Your task to perform on an android device: Clear the shopping cart on target.com. Search for logitech g903 on target.com, select the first entry, add it to the cart, then select checkout. Image 0: 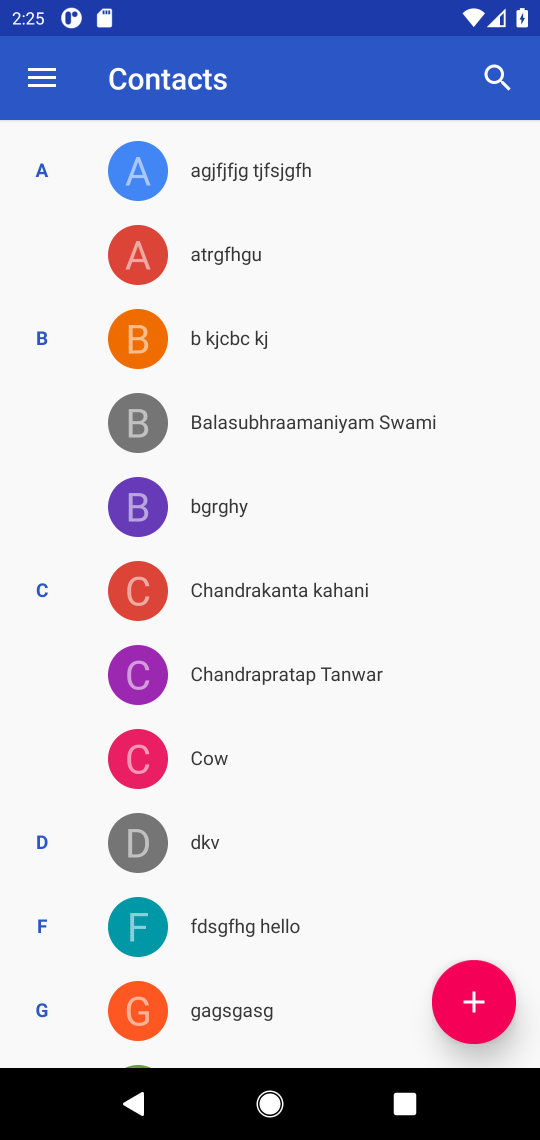
Step 0: press home button
Your task to perform on an android device: Clear the shopping cart on target.com. Search for logitech g903 on target.com, select the first entry, add it to the cart, then select checkout. Image 1: 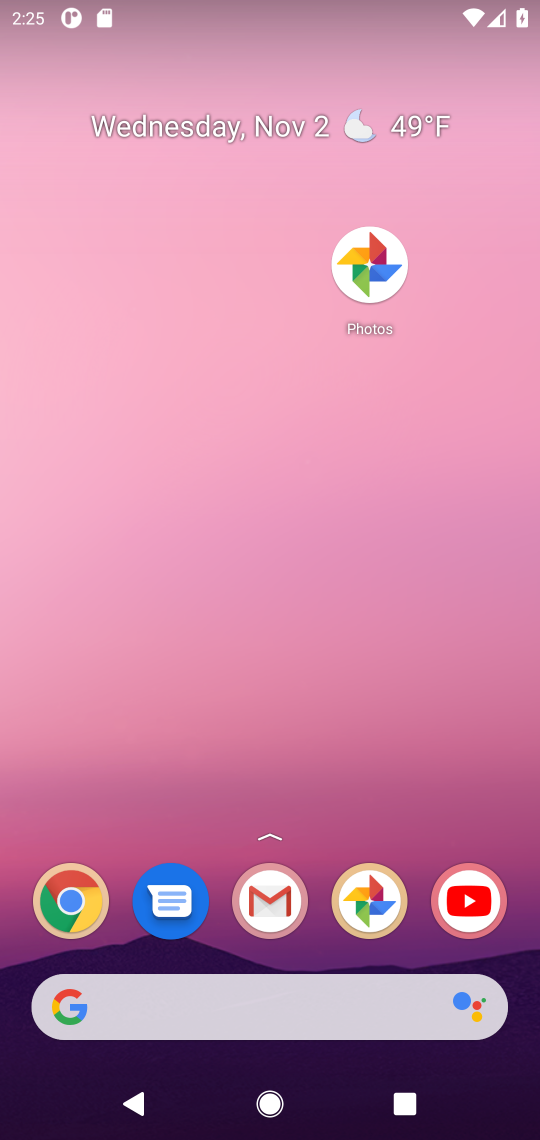
Step 1: drag from (323, 765) to (278, 109)
Your task to perform on an android device: Clear the shopping cart on target.com. Search for logitech g903 on target.com, select the first entry, add it to the cart, then select checkout. Image 2: 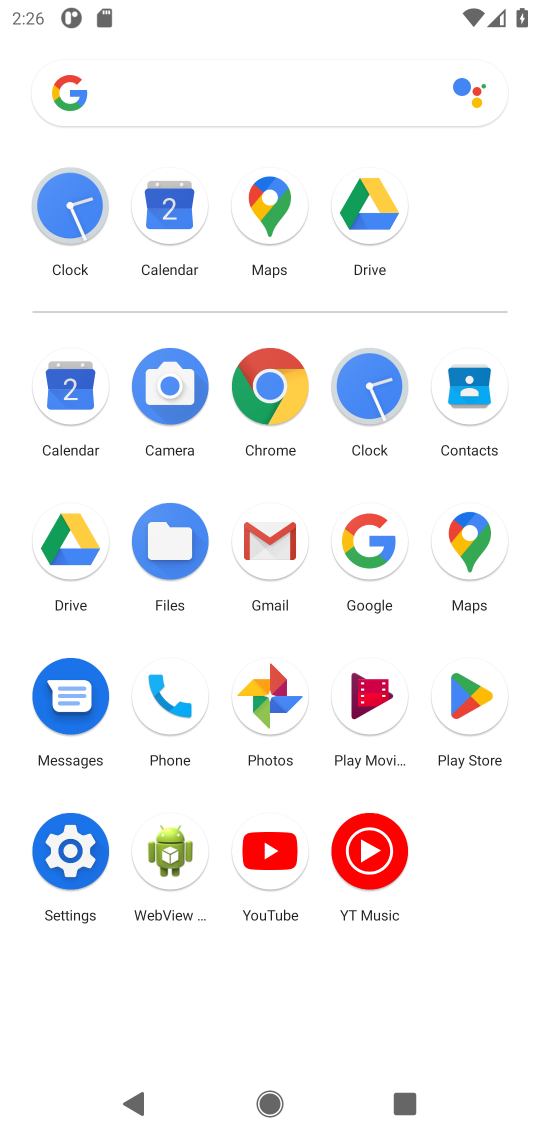
Step 2: click (277, 393)
Your task to perform on an android device: Clear the shopping cart on target.com. Search for logitech g903 on target.com, select the first entry, add it to the cart, then select checkout. Image 3: 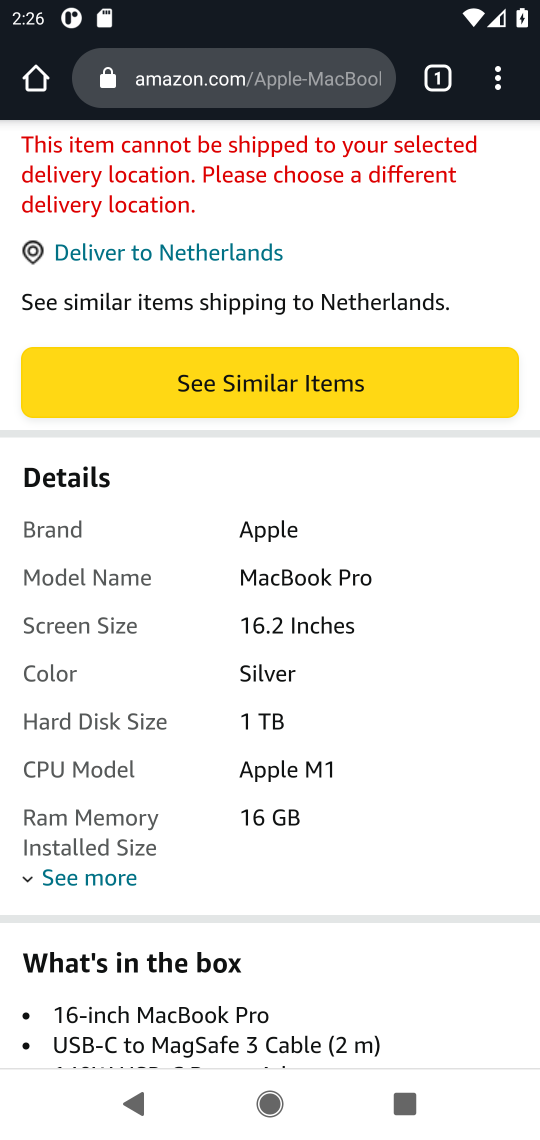
Step 3: click (292, 78)
Your task to perform on an android device: Clear the shopping cart on target.com. Search for logitech g903 on target.com, select the first entry, add it to the cart, then select checkout. Image 4: 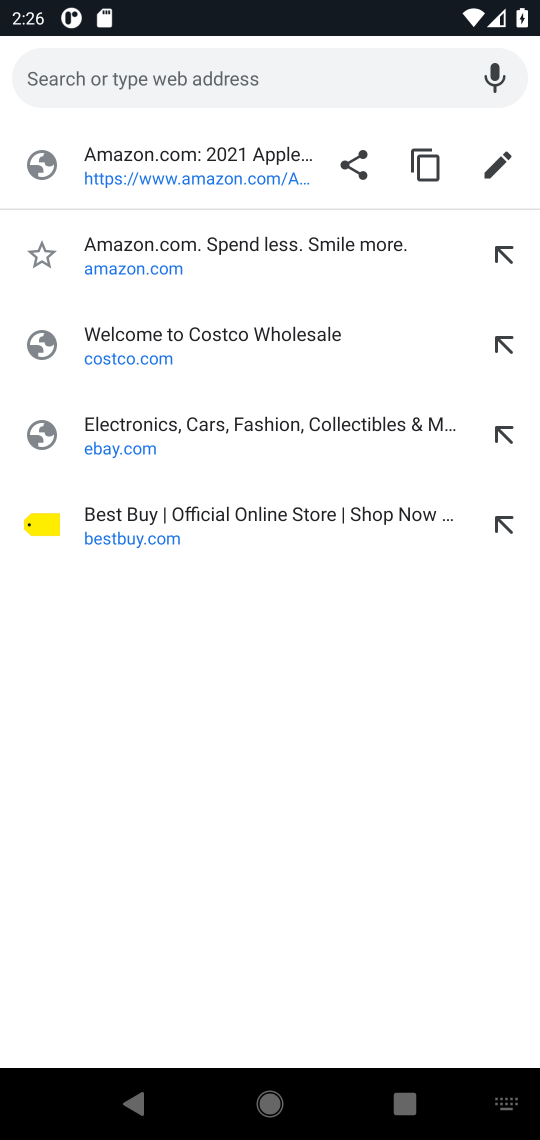
Step 4: type "target.com"
Your task to perform on an android device: Clear the shopping cart on target.com. Search for logitech g903 on target.com, select the first entry, add it to the cart, then select checkout. Image 5: 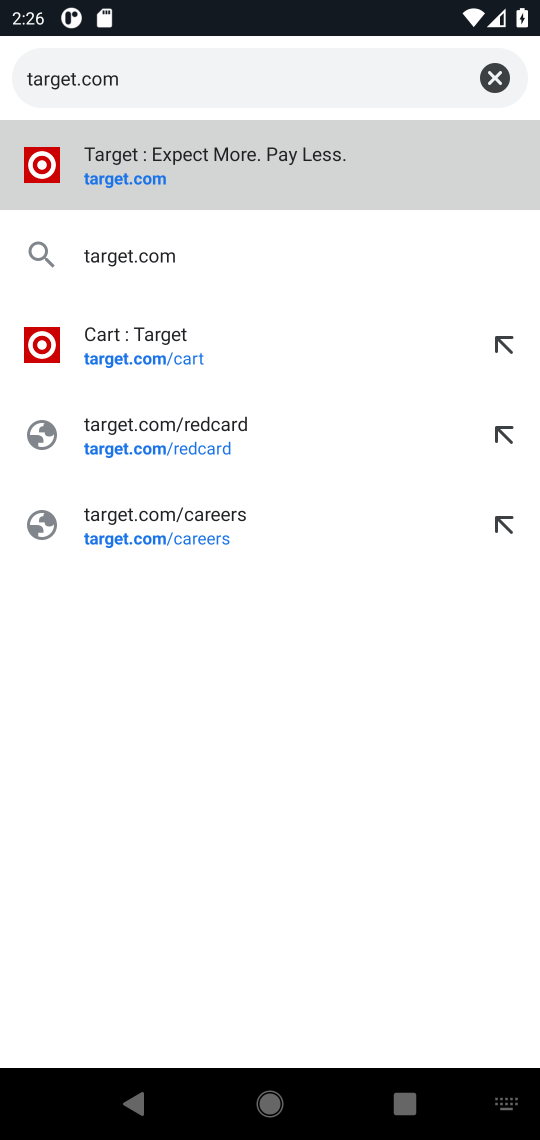
Step 5: press enter
Your task to perform on an android device: Clear the shopping cart on target.com. Search for logitech g903 on target.com, select the first entry, add it to the cart, then select checkout. Image 6: 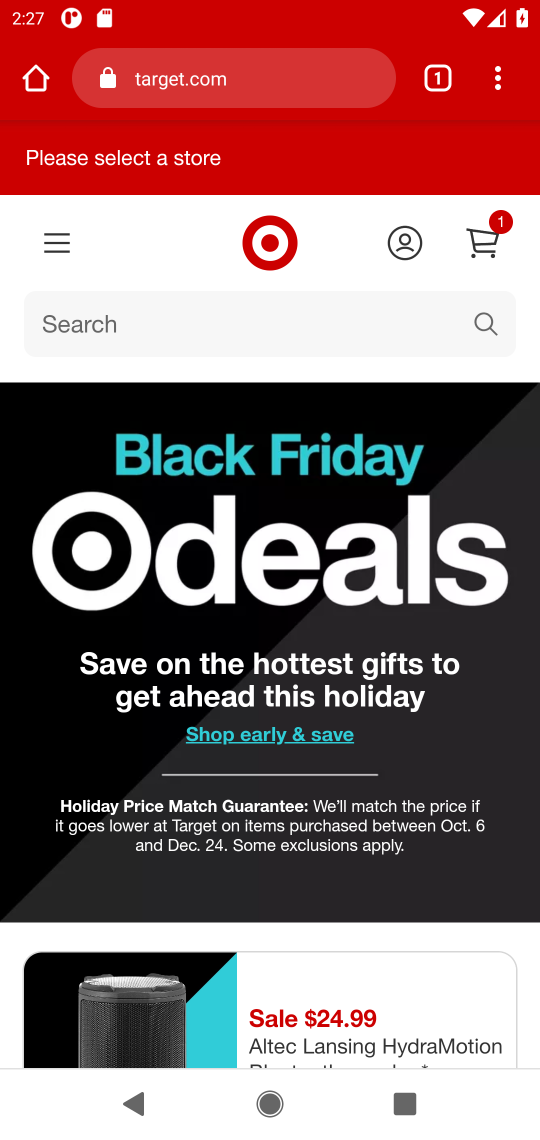
Step 6: click (497, 240)
Your task to perform on an android device: Clear the shopping cart on target.com. Search for logitech g903 on target.com, select the first entry, add it to the cart, then select checkout. Image 7: 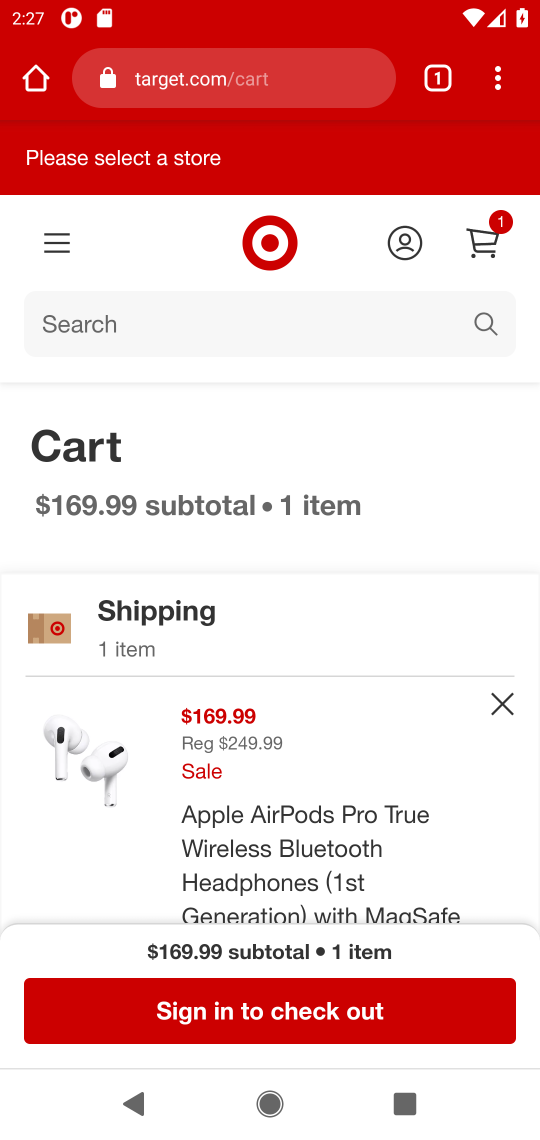
Step 7: drag from (247, 863) to (268, 584)
Your task to perform on an android device: Clear the shopping cart on target.com. Search for logitech g903 on target.com, select the first entry, add it to the cart, then select checkout. Image 8: 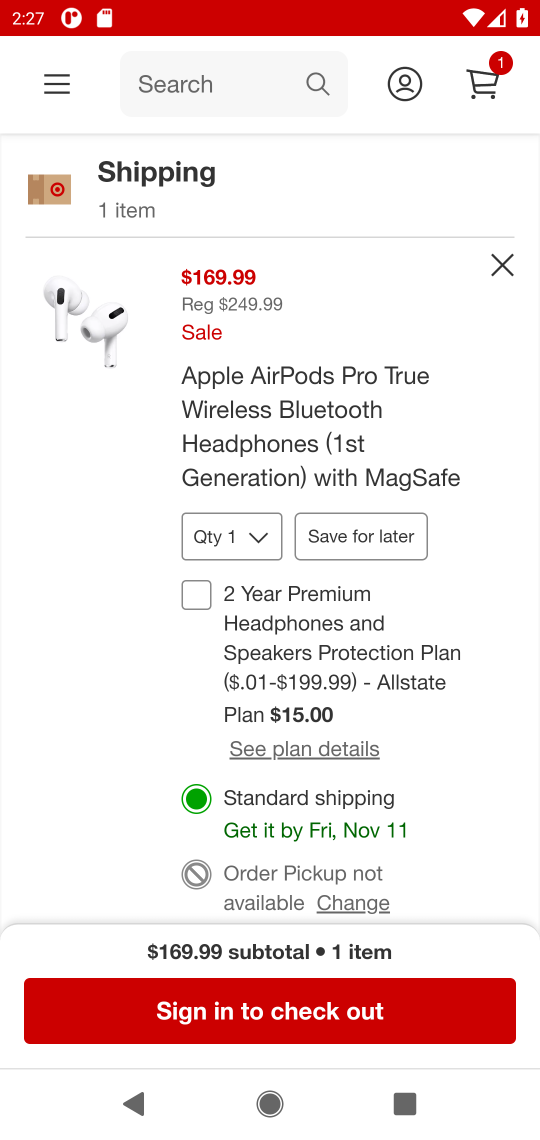
Step 8: click (511, 265)
Your task to perform on an android device: Clear the shopping cart on target.com. Search for logitech g903 on target.com, select the first entry, add it to the cart, then select checkout. Image 9: 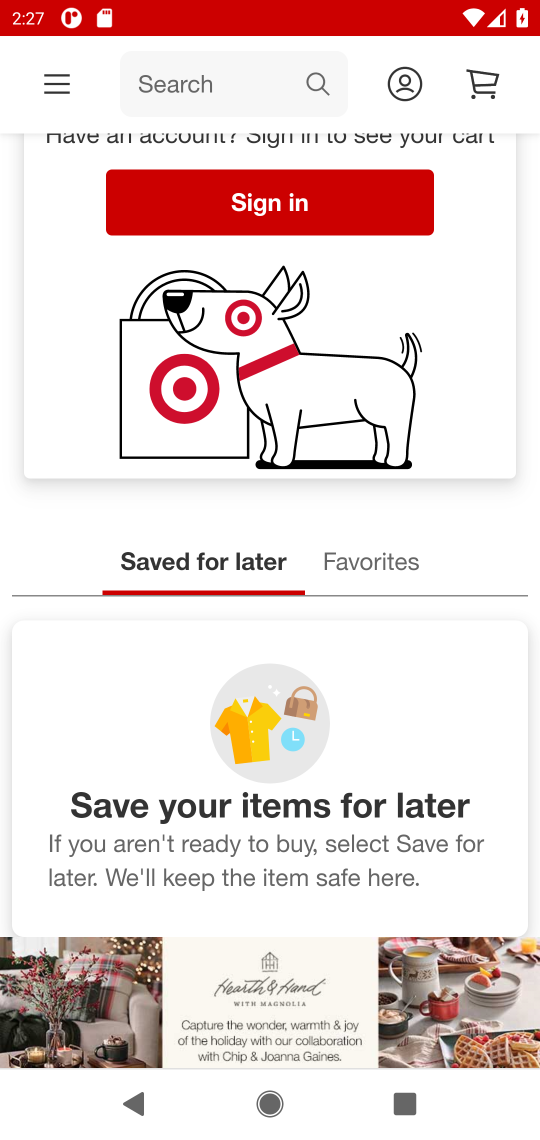
Step 9: click (317, 89)
Your task to perform on an android device: Clear the shopping cart on target.com. Search for logitech g903 on target.com, select the first entry, add it to the cart, then select checkout. Image 10: 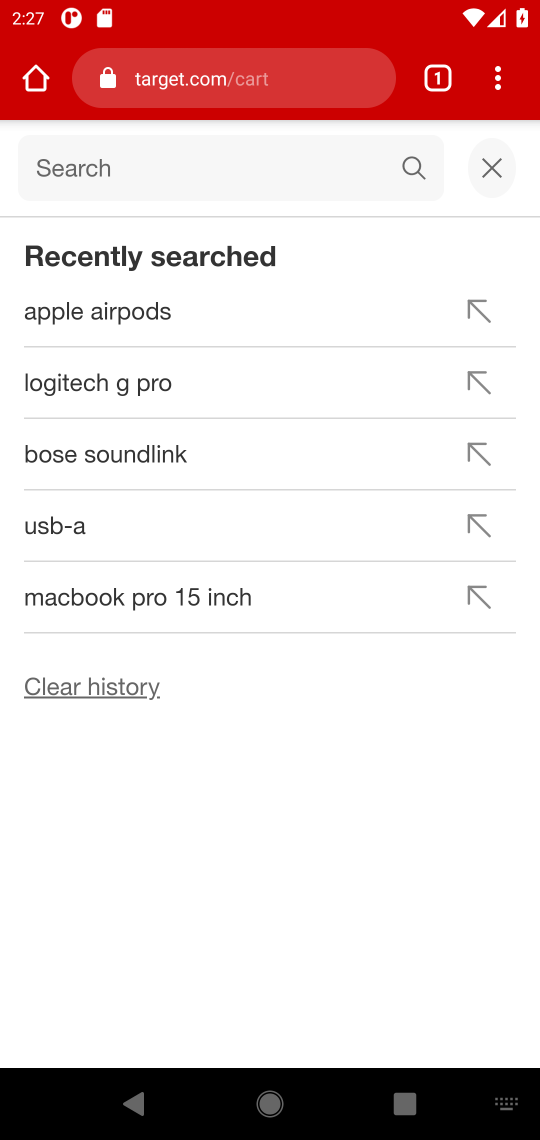
Step 10: type "logitech g903"
Your task to perform on an android device: Clear the shopping cart on target.com. Search for logitech g903 on target.com, select the first entry, add it to the cart, then select checkout. Image 11: 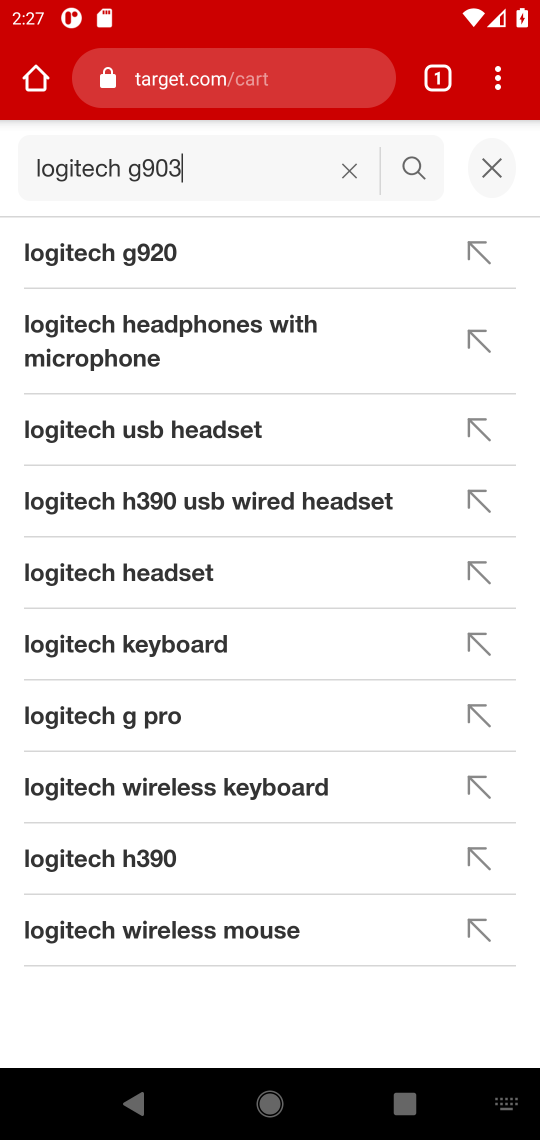
Step 11: press enter
Your task to perform on an android device: Clear the shopping cart on target.com. Search for logitech g903 on target.com, select the first entry, add it to the cart, then select checkout. Image 12: 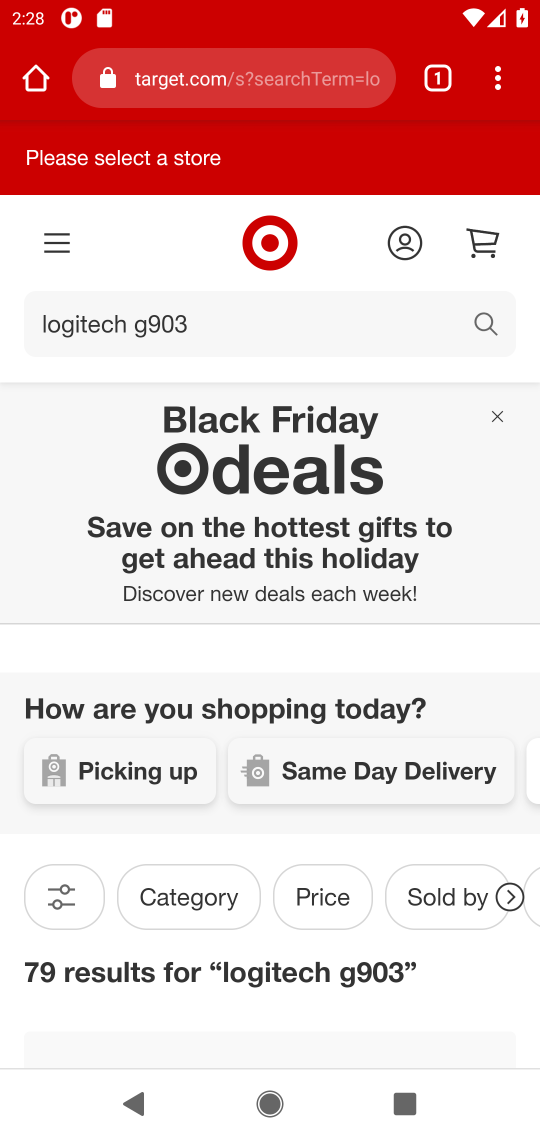
Step 12: task complete